Your task to perform on an android device: See recent photos Image 0: 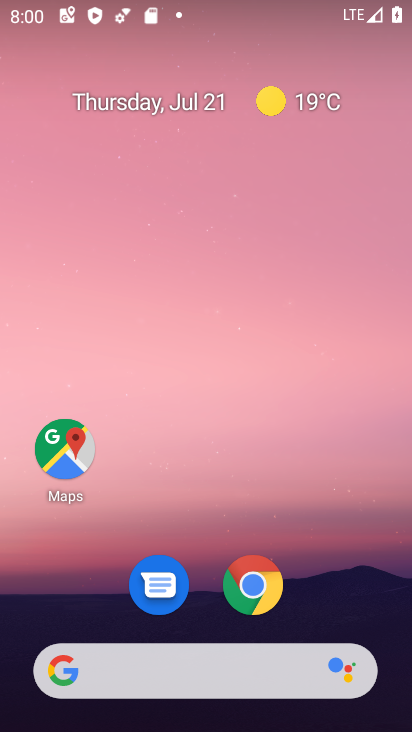
Step 0: drag from (321, 615) to (310, 59)
Your task to perform on an android device: See recent photos Image 1: 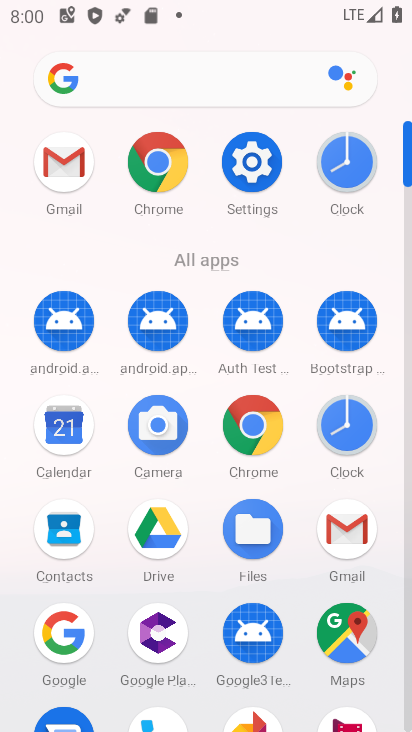
Step 1: drag from (307, 460) to (307, 160)
Your task to perform on an android device: See recent photos Image 2: 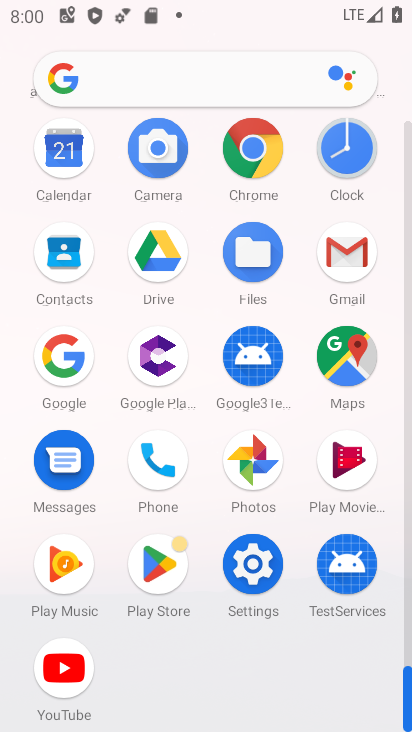
Step 2: click (260, 463)
Your task to perform on an android device: See recent photos Image 3: 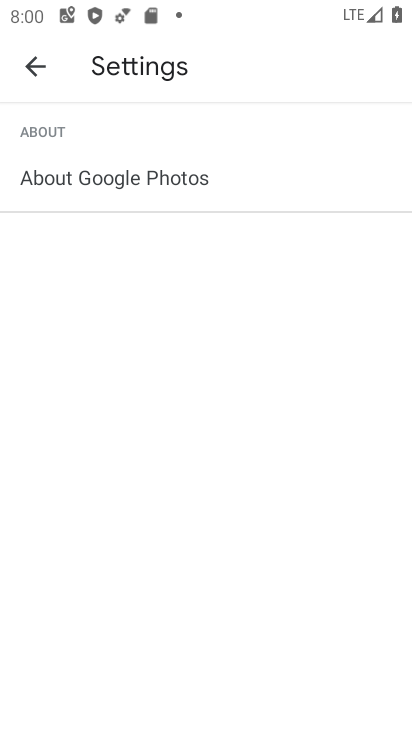
Step 3: click (32, 56)
Your task to perform on an android device: See recent photos Image 4: 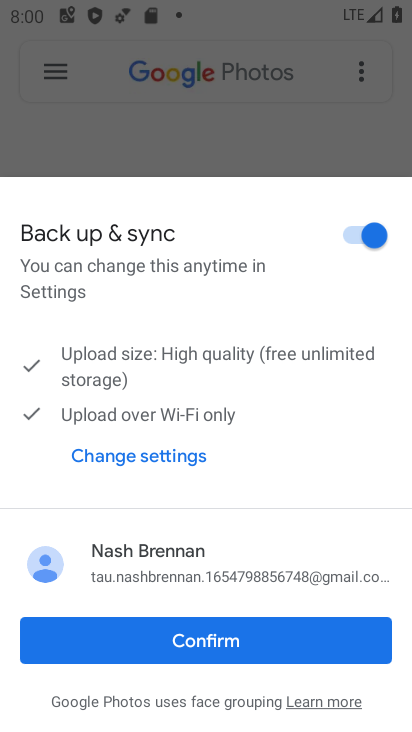
Step 4: click (335, 646)
Your task to perform on an android device: See recent photos Image 5: 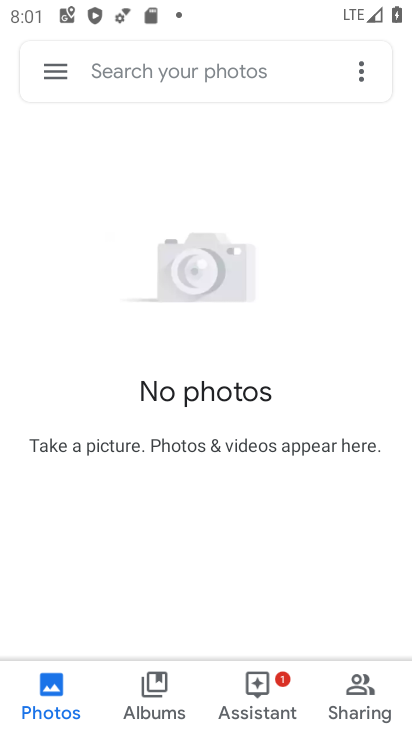
Step 5: task complete